Your task to perform on an android device: choose inbox layout in the gmail app Image 0: 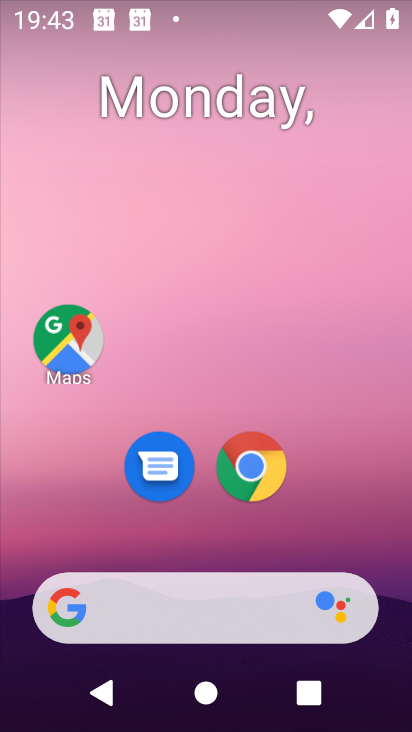
Step 0: drag from (351, 508) to (345, 34)
Your task to perform on an android device: choose inbox layout in the gmail app Image 1: 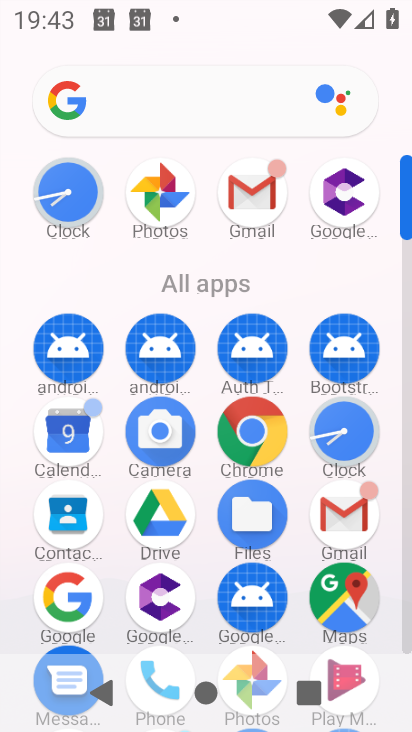
Step 1: click (259, 194)
Your task to perform on an android device: choose inbox layout in the gmail app Image 2: 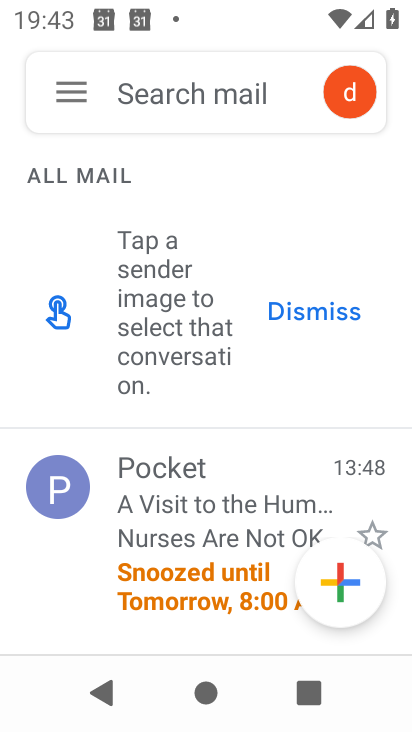
Step 2: click (74, 87)
Your task to perform on an android device: choose inbox layout in the gmail app Image 3: 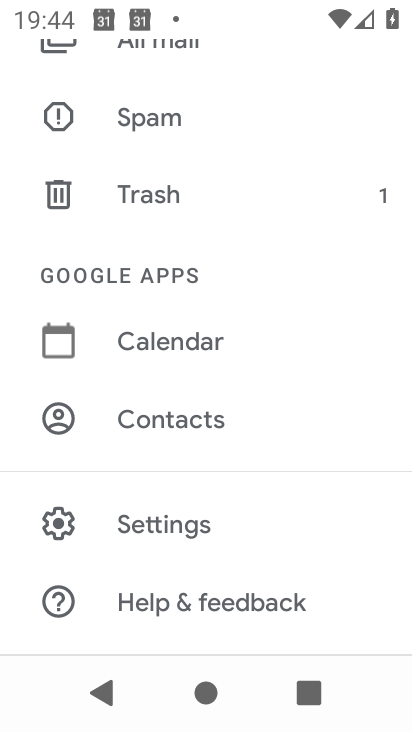
Step 3: click (157, 535)
Your task to perform on an android device: choose inbox layout in the gmail app Image 4: 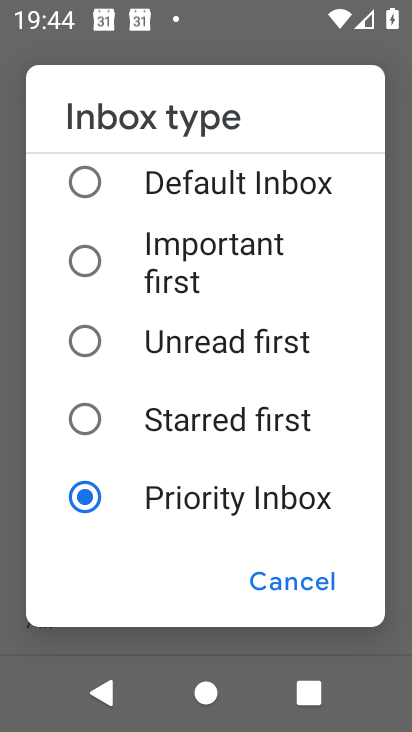
Step 4: task complete